Your task to perform on an android device: delete location history Image 0: 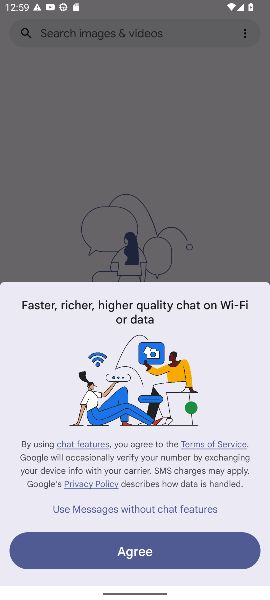
Step 0: press home button
Your task to perform on an android device: delete location history Image 1: 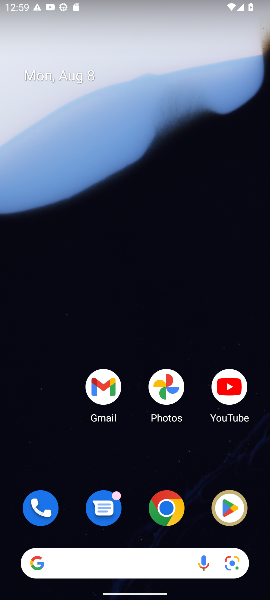
Step 1: drag from (136, 502) to (146, 124)
Your task to perform on an android device: delete location history Image 2: 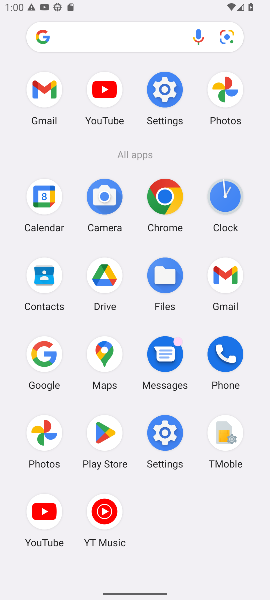
Step 2: click (105, 372)
Your task to perform on an android device: delete location history Image 3: 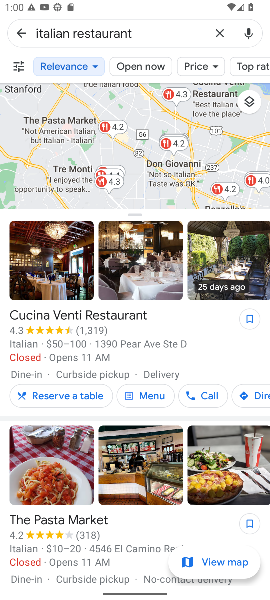
Step 3: click (25, 31)
Your task to perform on an android device: delete location history Image 4: 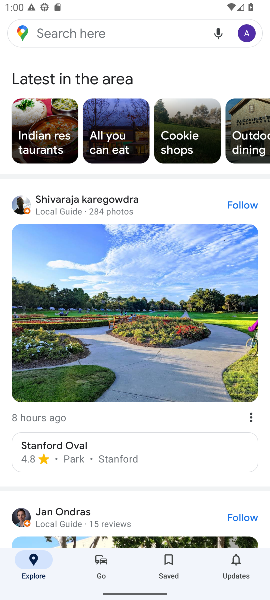
Step 4: click (163, 568)
Your task to perform on an android device: delete location history Image 5: 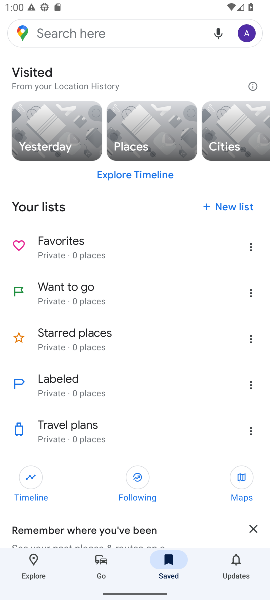
Step 5: click (36, 490)
Your task to perform on an android device: delete location history Image 6: 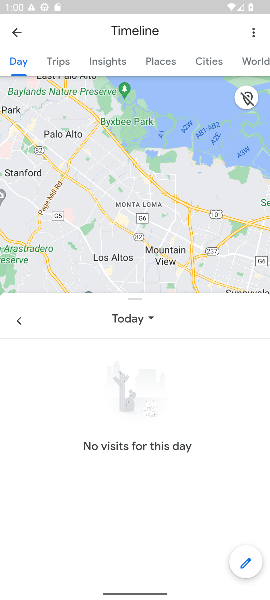
Step 6: click (254, 31)
Your task to perform on an android device: delete location history Image 7: 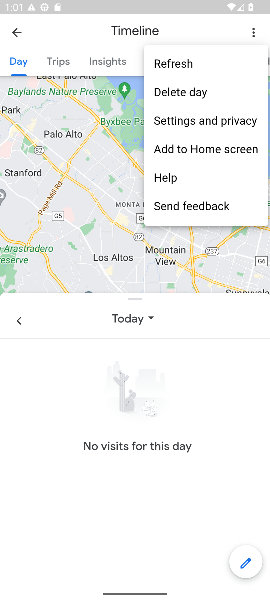
Step 7: click (194, 123)
Your task to perform on an android device: delete location history Image 8: 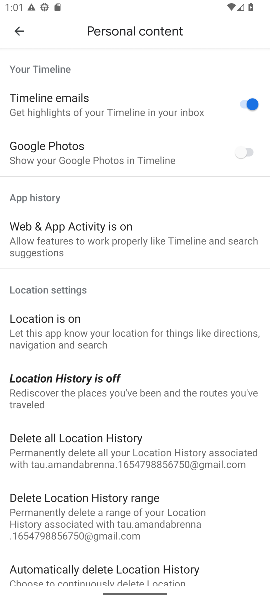
Step 8: drag from (129, 549) to (162, 268)
Your task to perform on an android device: delete location history Image 9: 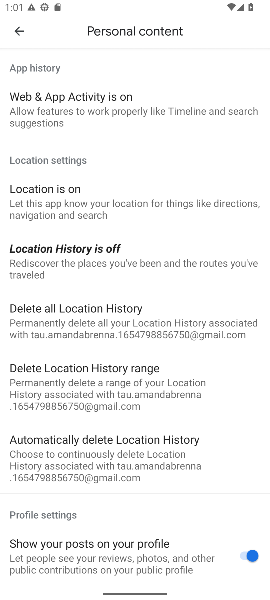
Step 9: click (73, 427)
Your task to perform on an android device: delete location history Image 10: 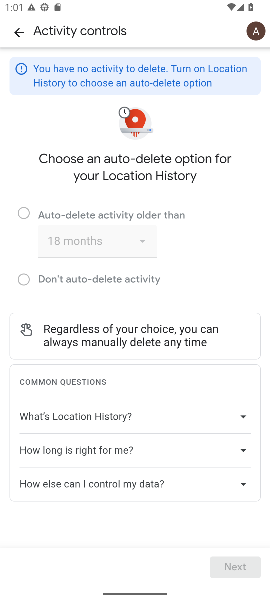
Step 10: press back button
Your task to perform on an android device: delete location history Image 11: 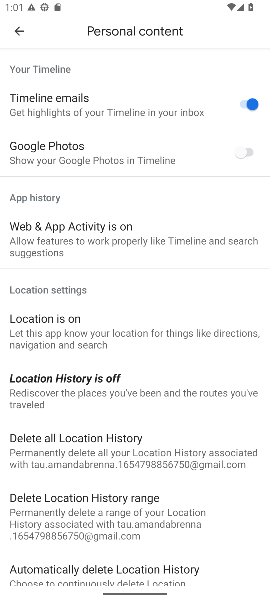
Step 11: click (84, 442)
Your task to perform on an android device: delete location history Image 12: 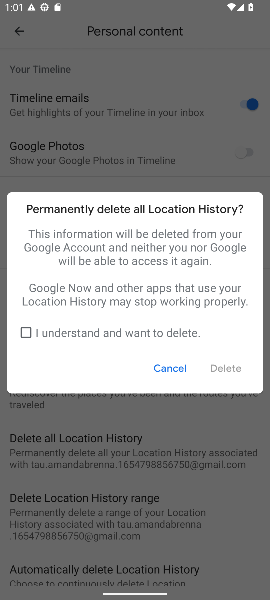
Step 12: click (28, 331)
Your task to perform on an android device: delete location history Image 13: 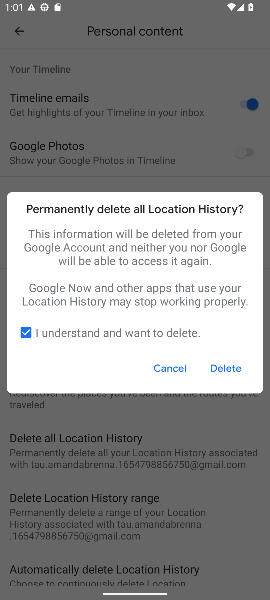
Step 13: click (230, 369)
Your task to perform on an android device: delete location history Image 14: 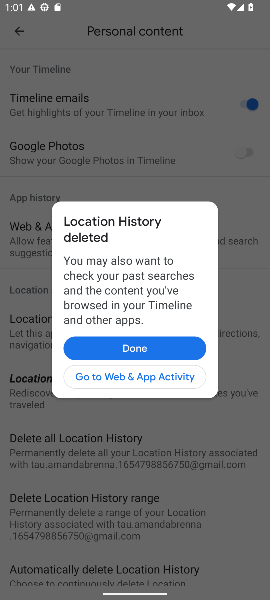
Step 14: click (125, 344)
Your task to perform on an android device: delete location history Image 15: 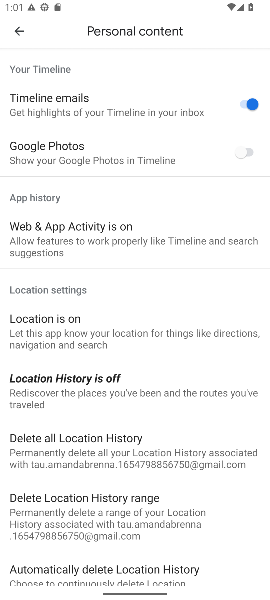
Step 15: task complete